Your task to perform on an android device: change the upload size in google photos Image 0: 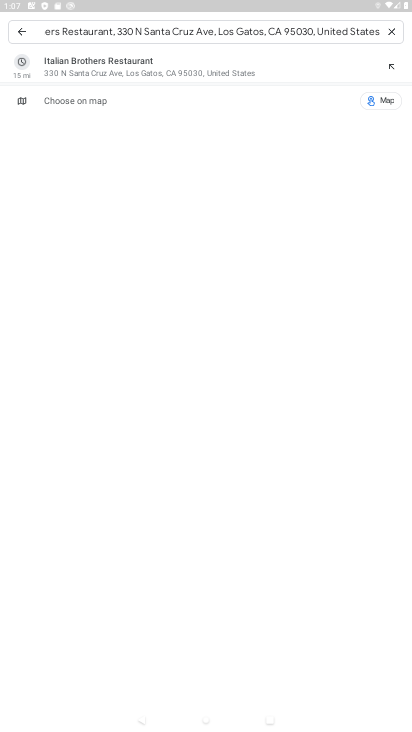
Step 0: press home button
Your task to perform on an android device: change the upload size in google photos Image 1: 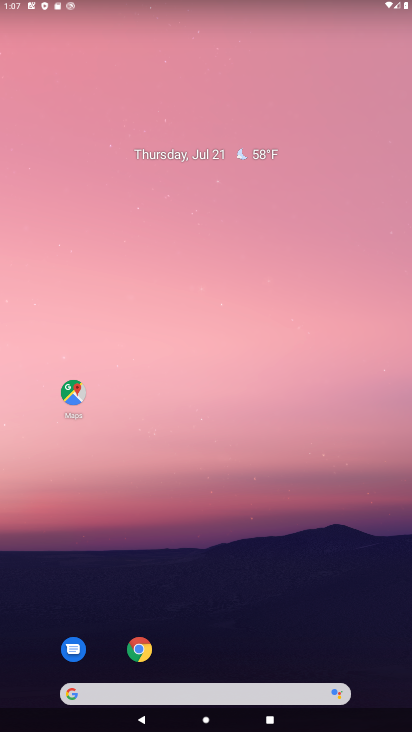
Step 1: drag from (229, 658) to (284, 205)
Your task to perform on an android device: change the upload size in google photos Image 2: 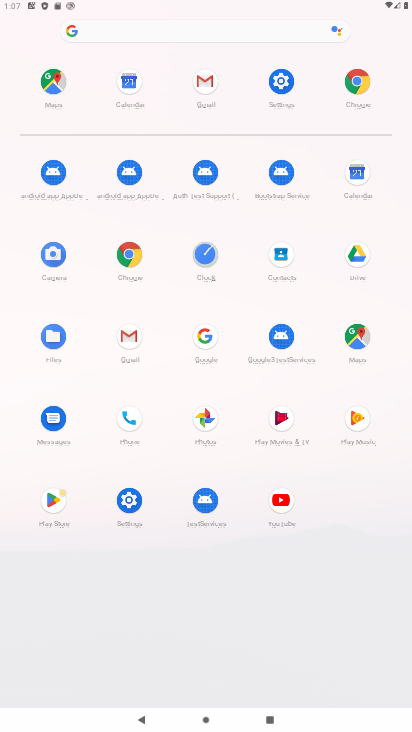
Step 2: click (193, 436)
Your task to perform on an android device: change the upload size in google photos Image 3: 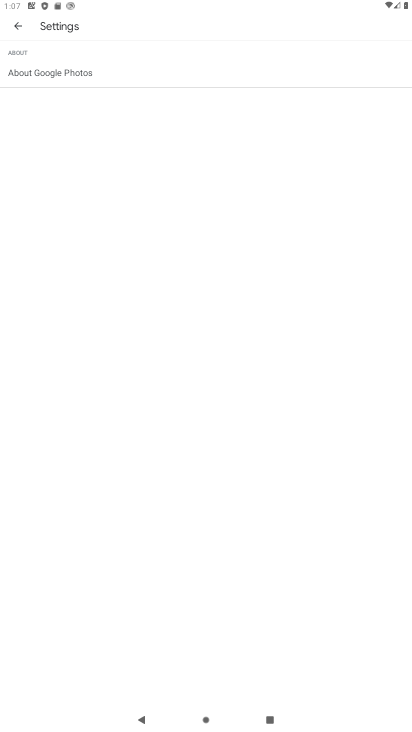
Step 3: task complete